Your task to perform on an android device: toggle show notifications on the lock screen Image 0: 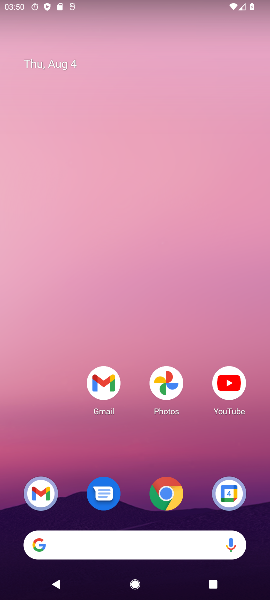
Step 0: drag from (101, 362) to (263, 1)
Your task to perform on an android device: toggle show notifications on the lock screen Image 1: 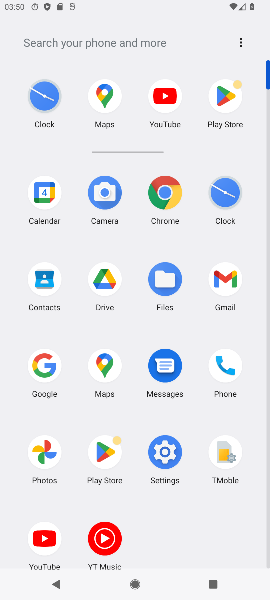
Step 1: click (158, 472)
Your task to perform on an android device: toggle show notifications on the lock screen Image 2: 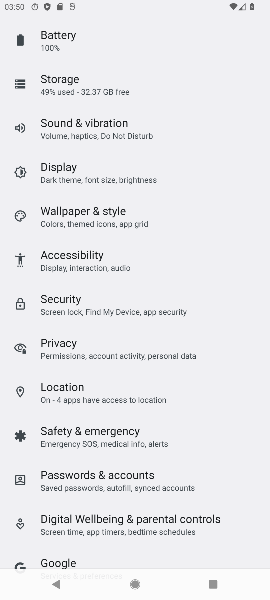
Step 2: drag from (171, 77) to (166, 597)
Your task to perform on an android device: toggle show notifications on the lock screen Image 3: 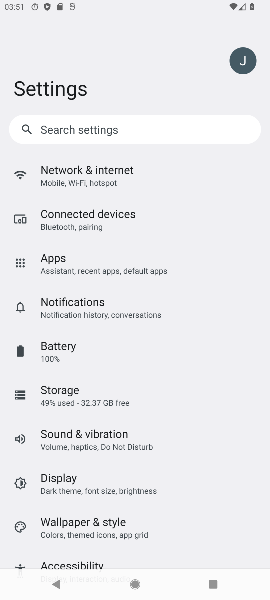
Step 3: click (117, 310)
Your task to perform on an android device: toggle show notifications on the lock screen Image 4: 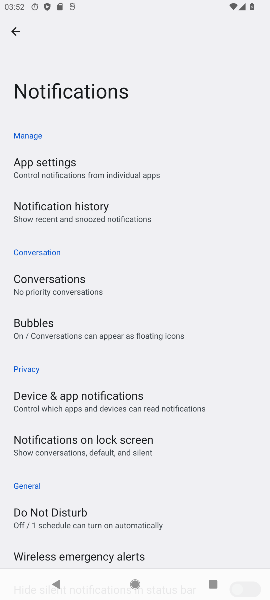
Step 4: drag from (150, 483) to (193, 194)
Your task to perform on an android device: toggle show notifications on the lock screen Image 5: 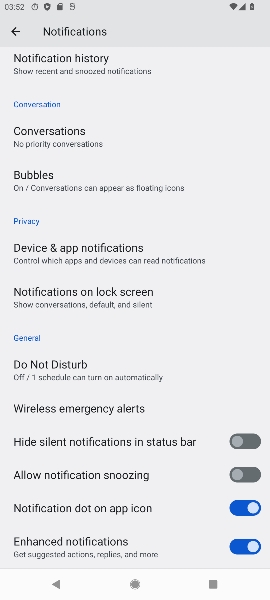
Step 5: drag from (108, 472) to (151, 214)
Your task to perform on an android device: toggle show notifications on the lock screen Image 6: 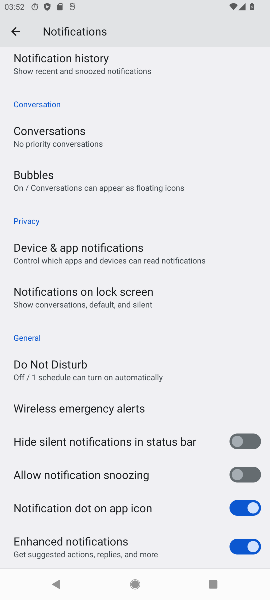
Step 6: drag from (146, 128) to (131, 439)
Your task to perform on an android device: toggle show notifications on the lock screen Image 7: 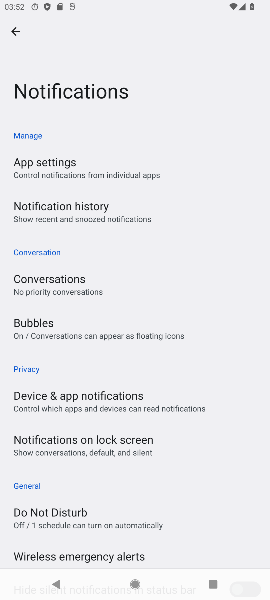
Step 7: click (44, 449)
Your task to perform on an android device: toggle show notifications on the lock screen Image 8: 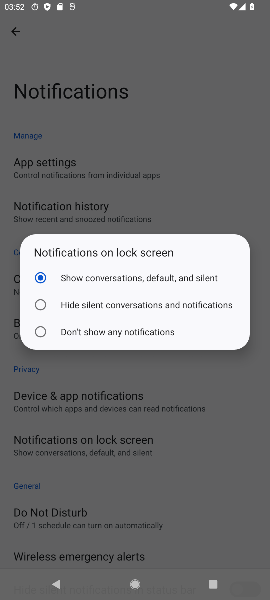
Step 8: task complete